Your task to perform on an android device: toggle data saver in the chrome app Image 0: 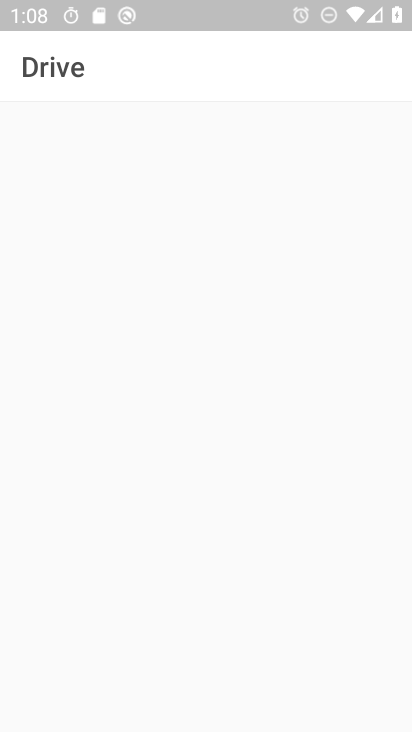
Step 0: press home button
Your task to perform on an android device: toggle data saver in the chrome app Image 1: 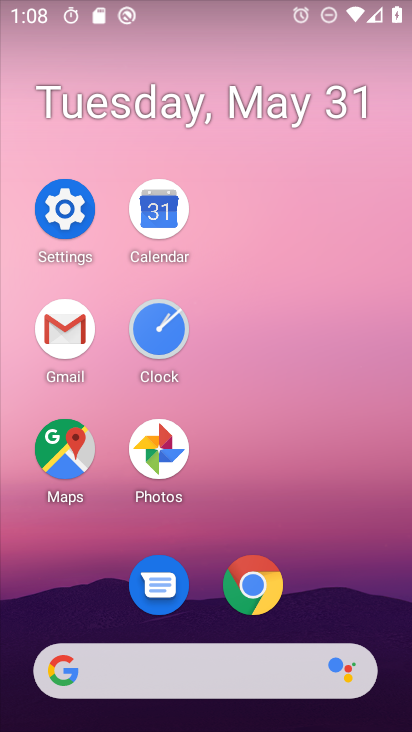
Step 1: click (250, 597)
Your task to perform on an android device: toggle data saver in the chrome app Image 2: 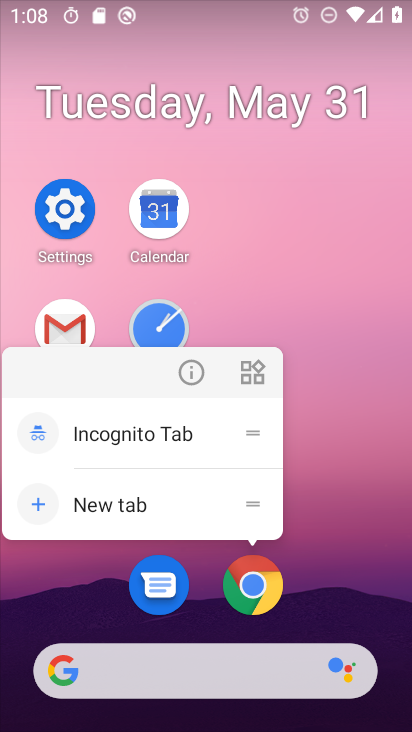
Step 2: click (278, 584)
Your task to perform on an android device: toggle data saver in the chrome app Image 3: 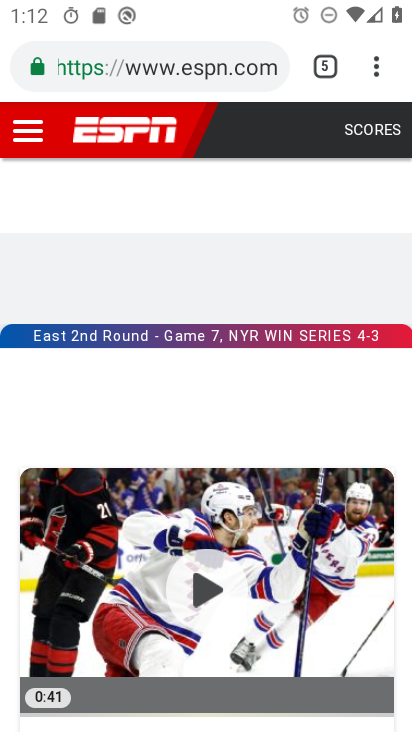
Step 3: click (381, 73)
Your task to perform on an android device: toggle data saver in the chrome app Image 4: 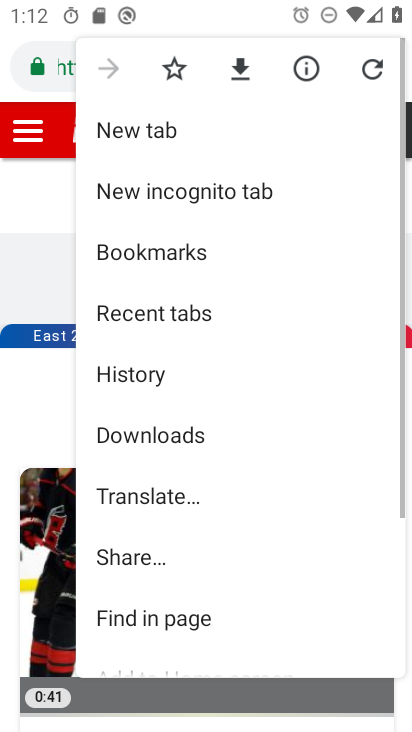
Step 4: drag from (209, 555) to (251, 176)
Your task to perform on an android device: toggle data saver in the chrome app Image 5: 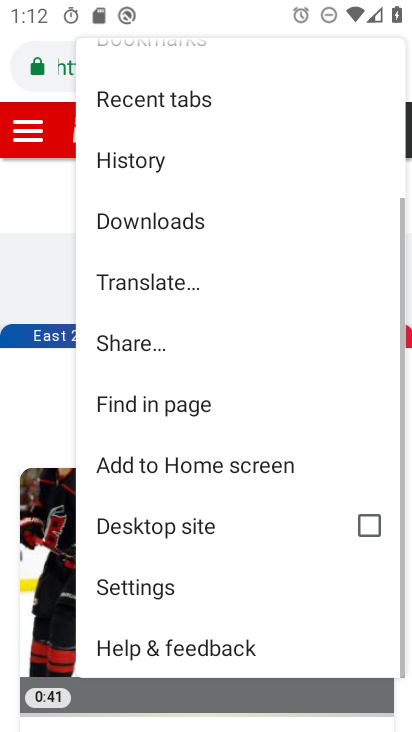
Step 5: click (173, 595)
Your task to perform on an android device: toggle data saver in the chrome app Image 6: 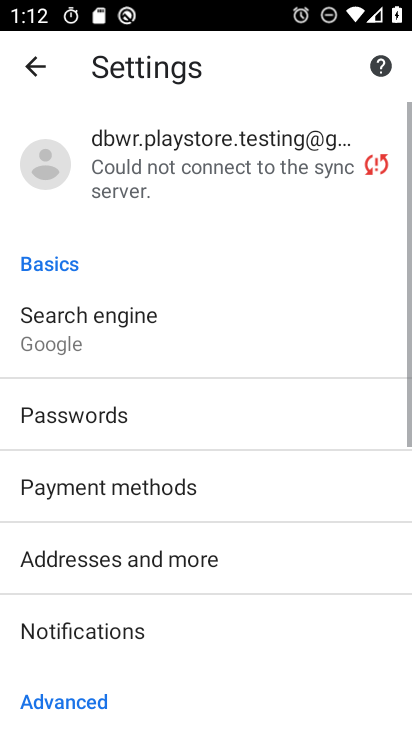
Step 6: drag from (173, 595) to (198, 156)
Your task to perform on an android device: toggle data saver in the chrome app Image 7: 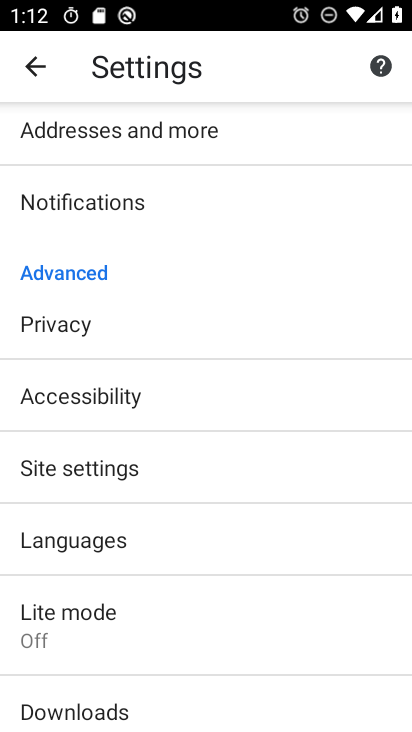
Step 7: click (160, 608)
Your task to perform on an android device: toggle data saver in the chrome app Image 8: 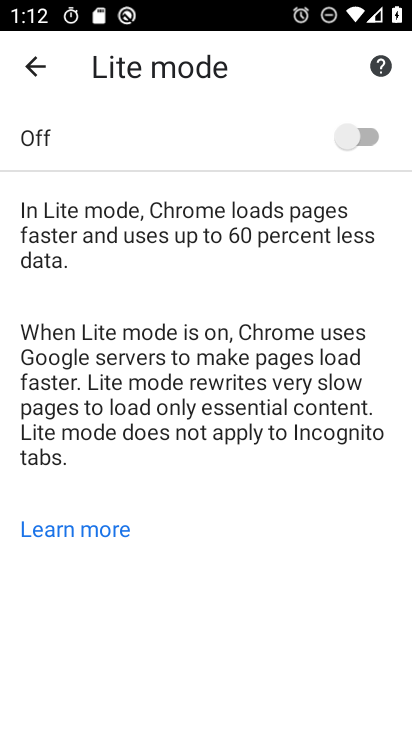
Step 8: click (352, 126)
Your task to perform on an android device: toggle data saver in the chrome app Image 9: 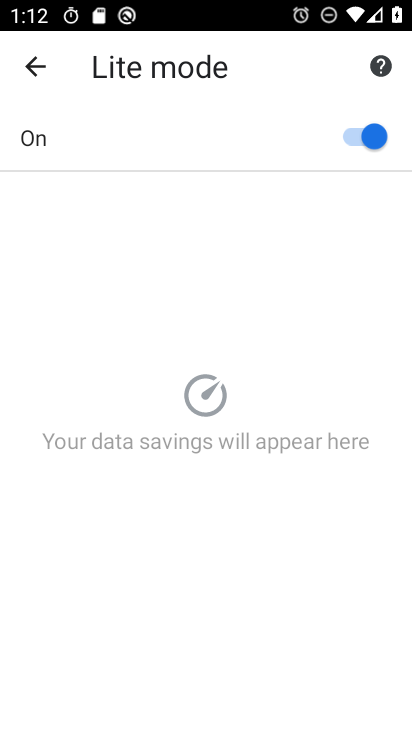
Step 9: task complete